Your task to perform on an android device: Go to Google Image 0: 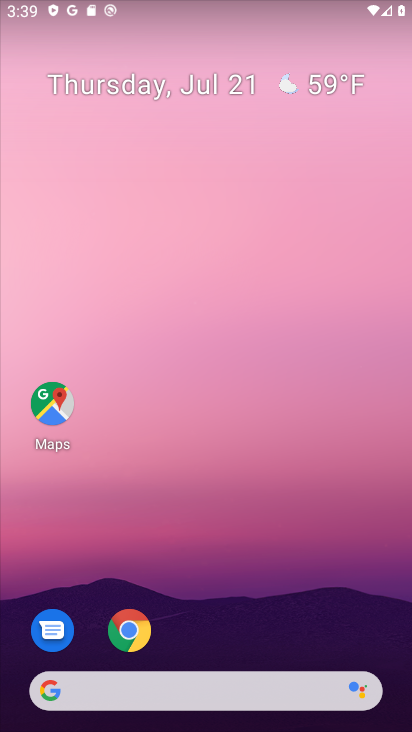
Step 0: click (267, 466)
Your task to perform on an android device: Go to Google Image 1: 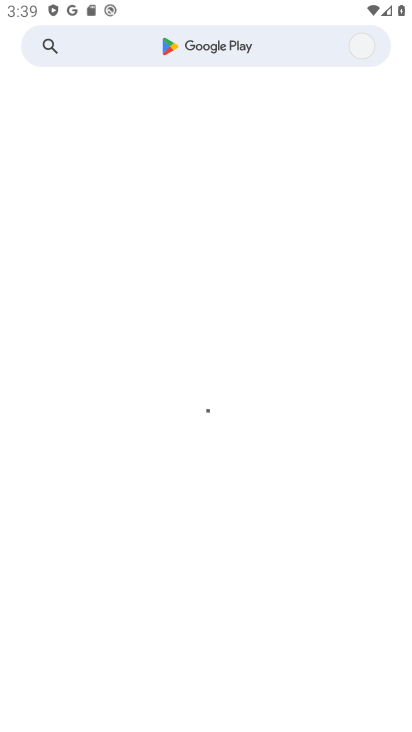
Step 1: press back button
Your task to perform on an android device: Go to Google Image 2: 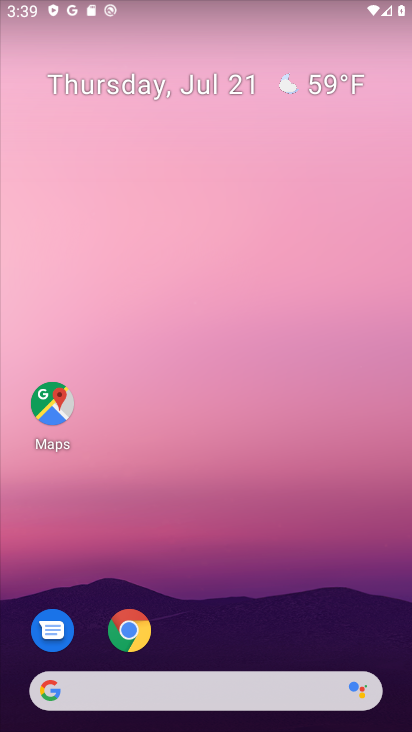
Step 2: drag from (201, 397) to (189, 183)
Your task to perform on an android device: Go to Google Image 3: 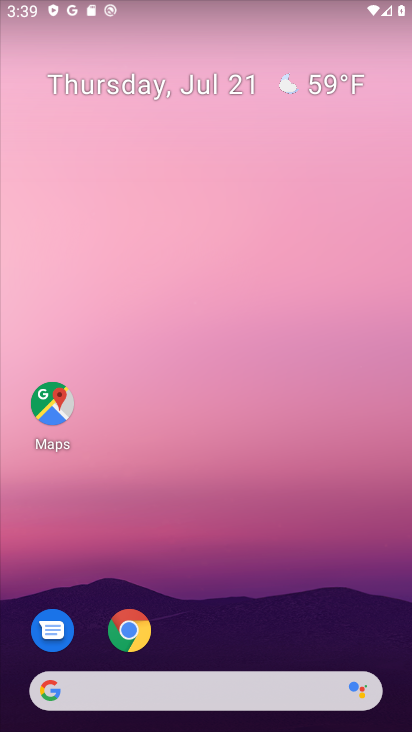
Step 3: drag from (226, 521) to (180, 54)
Your task to perform on an android device: Go to Google Image 4: 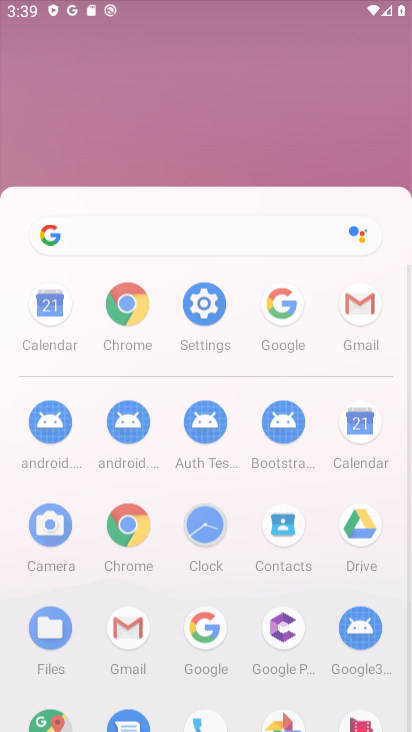
Step 4: drag from (229, 358) to (232, 105)
Your task to perform on an android device: Go to Google Image 5: 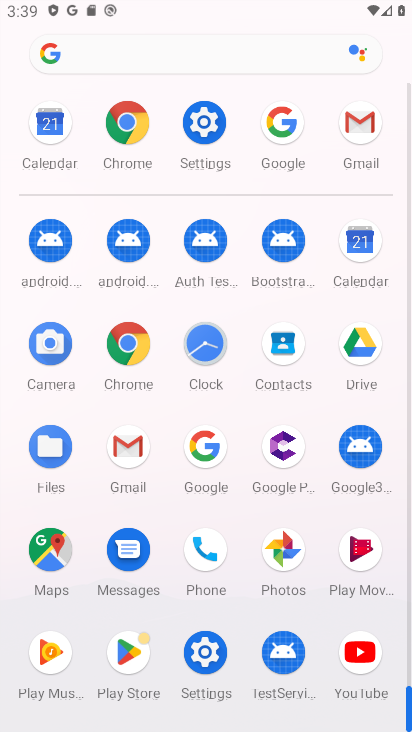
Step 5: drag from (264, 453) to (253, 94)
Your task to perform on an android device: Go to Google Image 6: 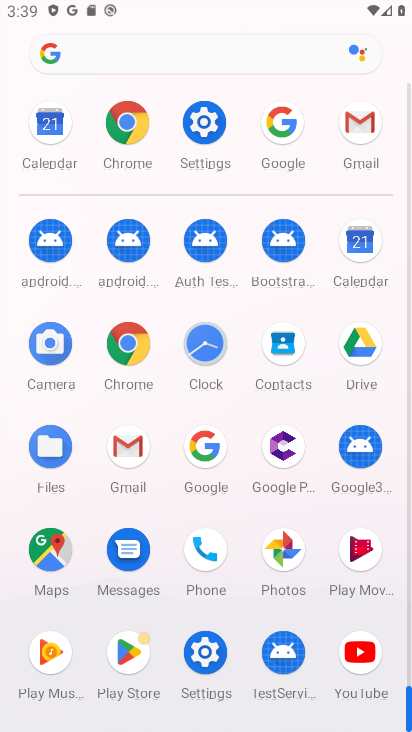
Step 6: click (209, 449)
Your task to perform on an android device: Go to Google Image 7: 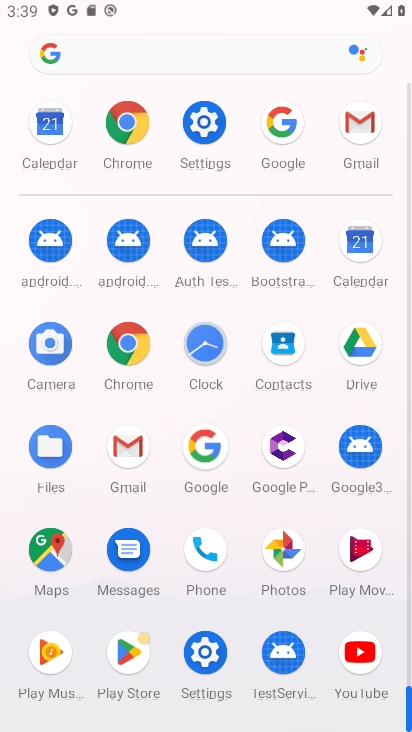
Step 7: click (209, 449)
Your task to perform on an android device: Go to Google Image 8: 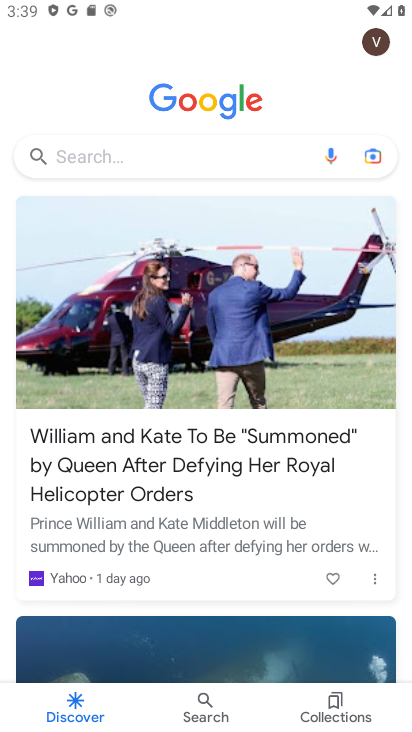
Step 8: task complete